Your task to perform on an android device: Open Amazon Image 0: 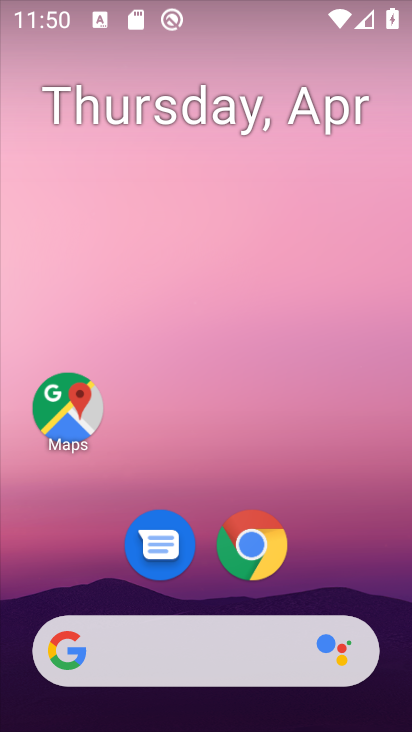
Step 0: click (277, 547)
Your task to perform on an android device: Open Amazon Image 1: 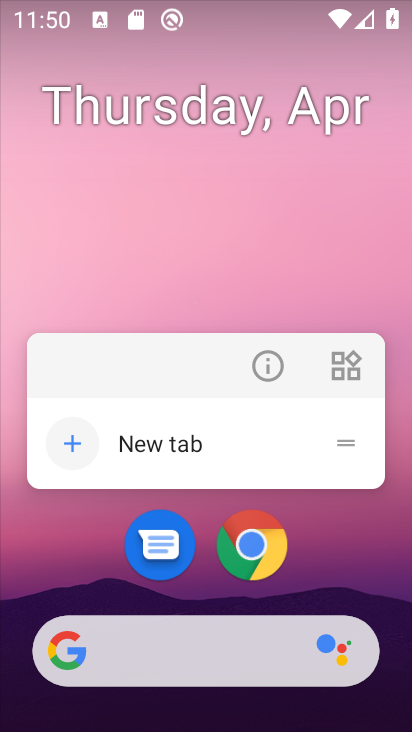
Step 1: click (275, 546)
Your task to perform on an android device: Open Amazon Image 2: 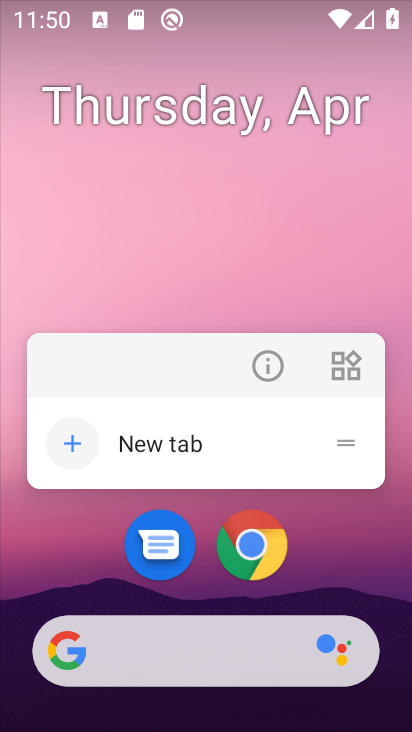
Step 2: click (256, 527)
Your task to perform on an android device: Open Amazon Image 3: 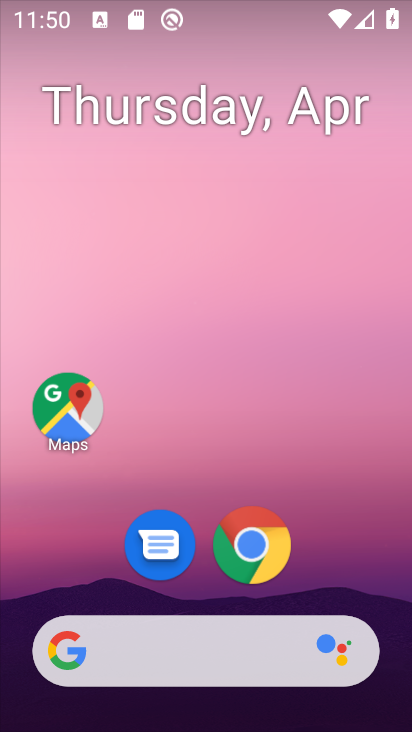
Step 3: click (269, 368)
Your task to perform on an android device: Open Amazon Image 4: 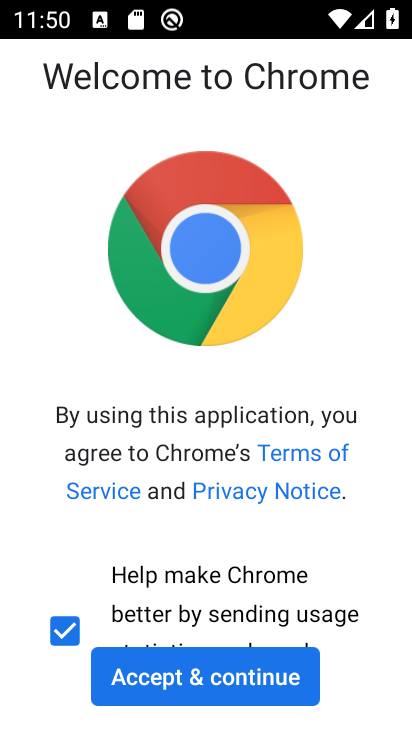
Step 4: click (224, 684)
Your task to perform on an android device: Open Amazon Image 5: 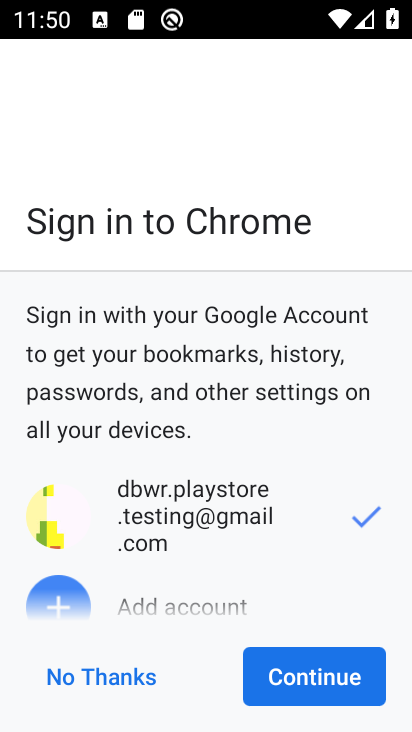
Step 5: click (251, 683)
Your task to perform on an android device: Open Amazon Image 6: 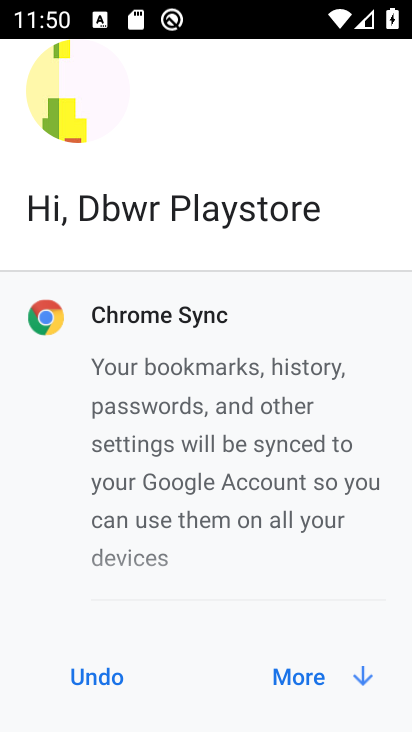
Step 6: click (268, 683)
Your task to perform on an android device: Open Amazon Image 7: 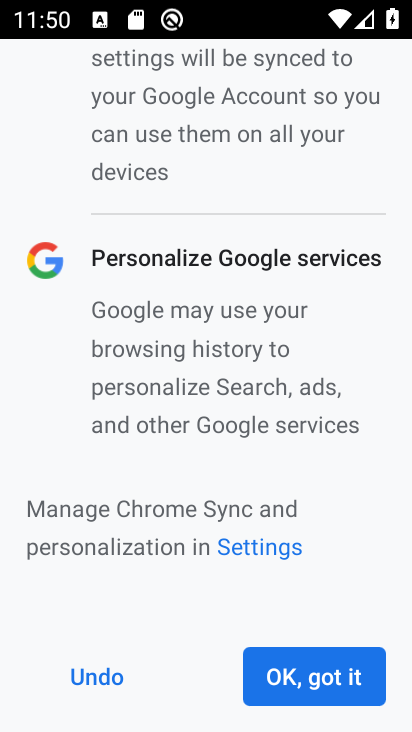
Step 7: click (277, 670)
Your task to perform on an android device: Open Amazon Image 8: 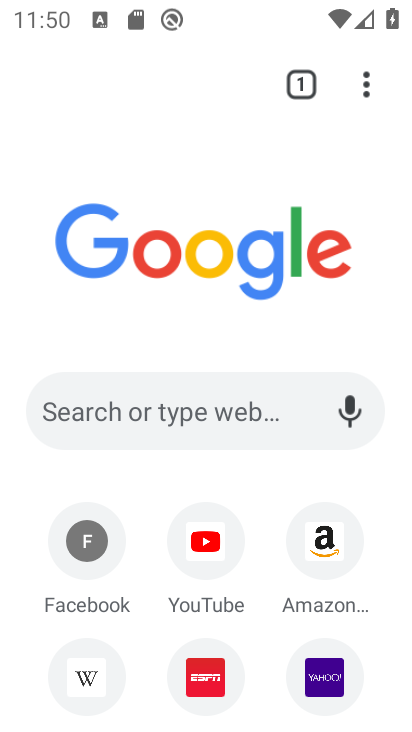
Step 8: click (300, 556)
Your task to perform on an android device: Open Amazon Image 9: 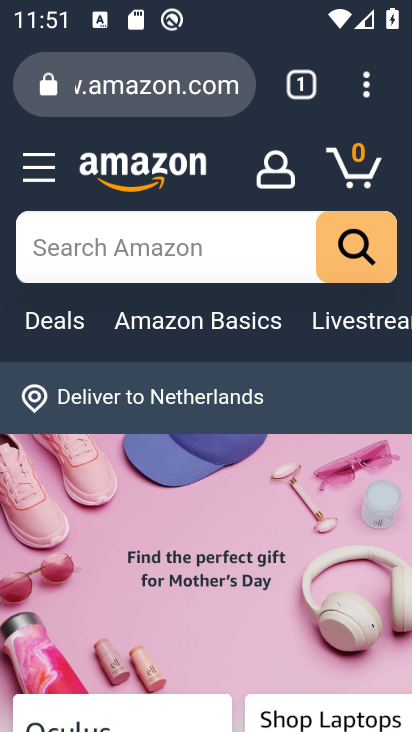
Step 9: click (112, 607)
Your task to perform on an android device: Open Amazon Image 10: 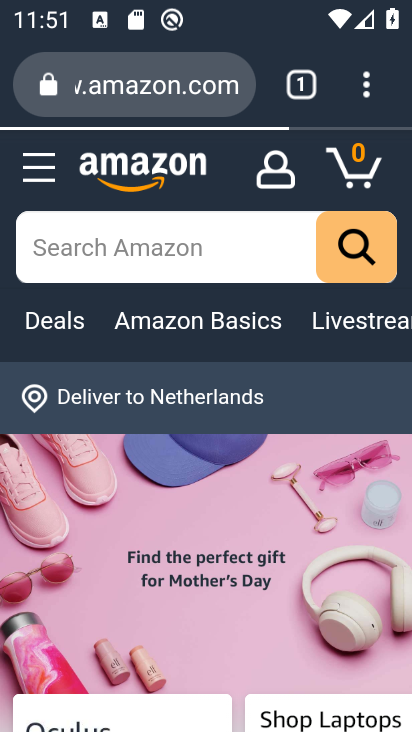
Step 10: task complete